Your task to perform on an android device: Go to settings Image 0: 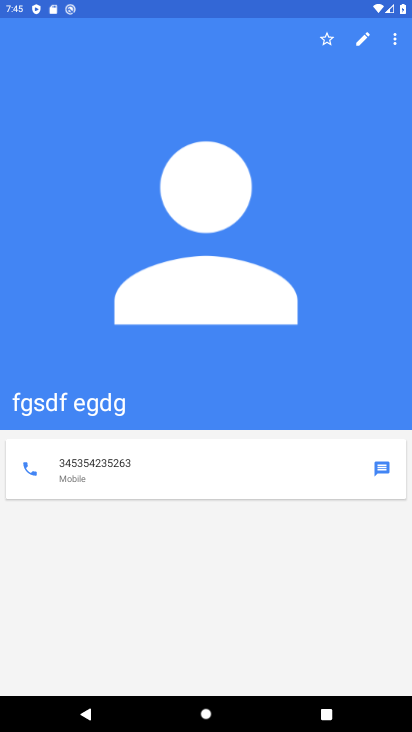
Step 0: press home button
Your task to perform on an android device: Go to settings Image 1: 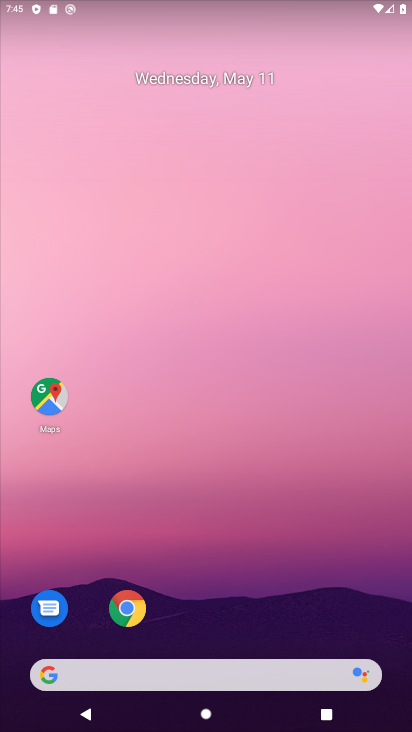
Step 1: drag from (250, 561) to (205, 30)
Your task to perform on an android device: Go to settings Image 2: 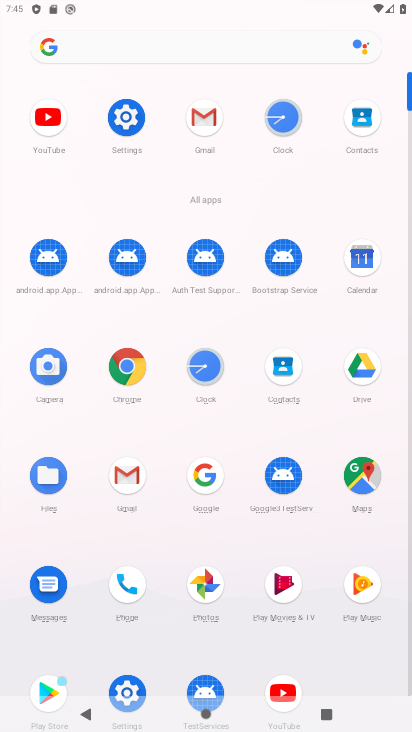
Step 2: click (116, 124)
Your task to perform on an android device: Go to settings Image 3: 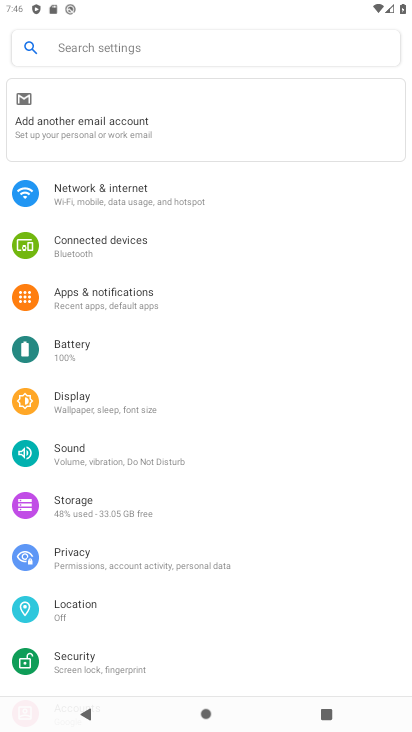
Step 3: task complete